Your task to perform on an android device: turn off airplane mode Image 0: 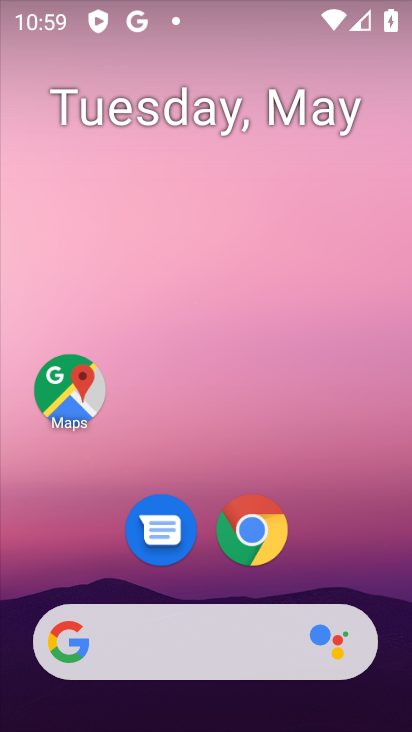
Step 0: drag from (329, 372) to (308, 116)
Your task to perform on an android device: turn off airplane mode Image 1: 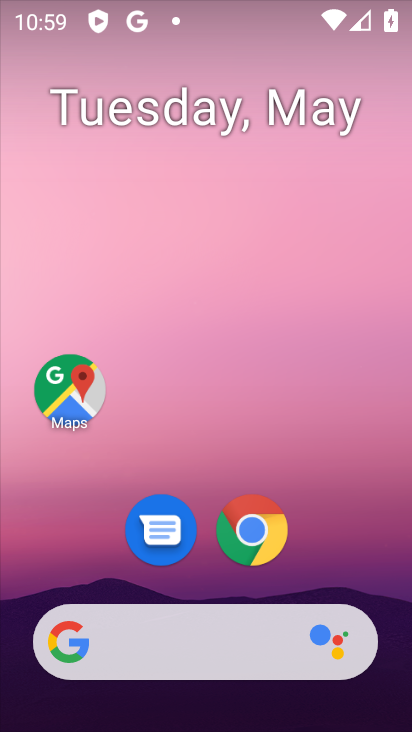
Step 1: drag from (341, 477) to (316, 140)
Your task to perform on an android device: turn off airplane mode Image 2: 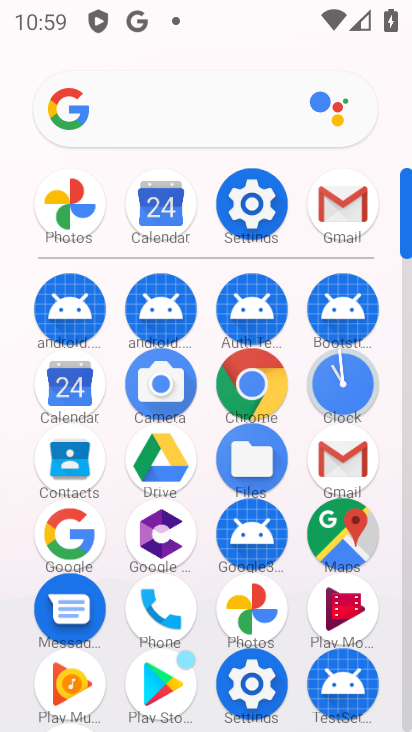
Step 2: click (266, 203)
Your task to perform on an android device: turn off airplane mode Image 3: 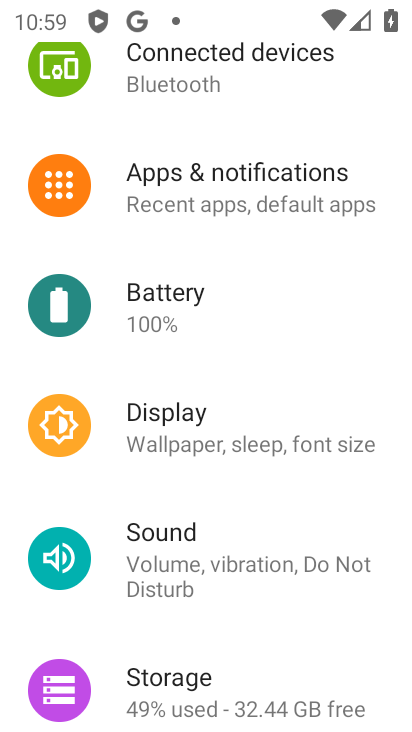
Step 3: drag from (250, 114) to (268, 487)
Your task to perform on an android device: turn off airplane mode Image 4: 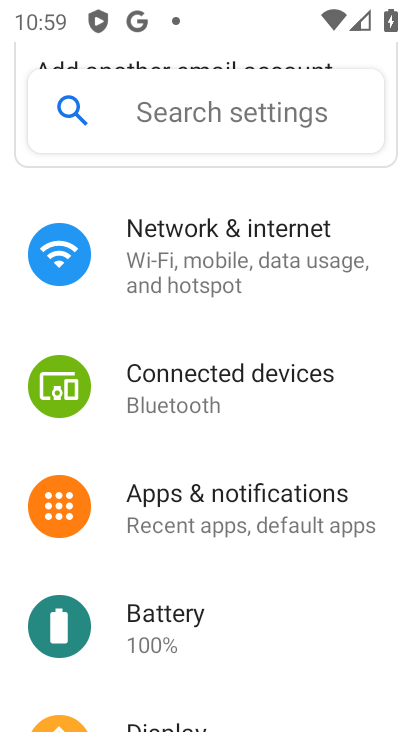
Step 4: drag from (241, 222) to (241, 379)
Your task to perform on an android device: turn off airplane mode Image 5: 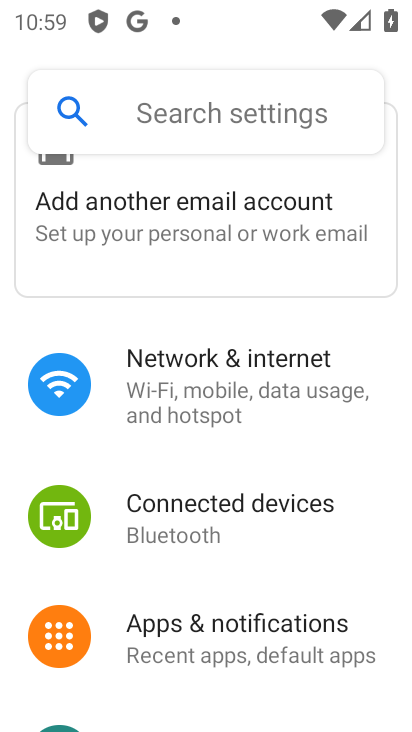
Step 5: click (234, 369)
Your task to perform on an android device: turn off airplane mode Image 6: 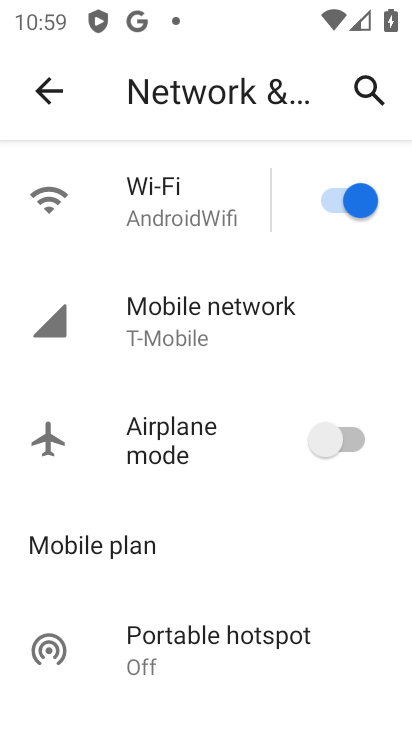
Step 6: click (88, 444)
Your task to perform on an android device: turn off airplane mode Image 7: 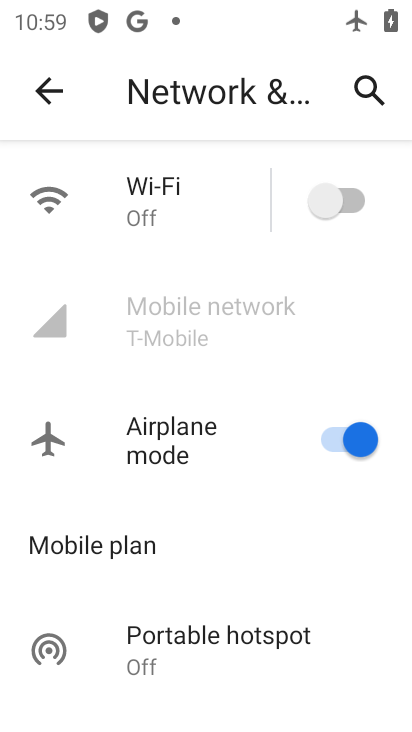
Step 7: click (331, 443)
Your task to perform on an android device: turn off airplane mode Image 8: 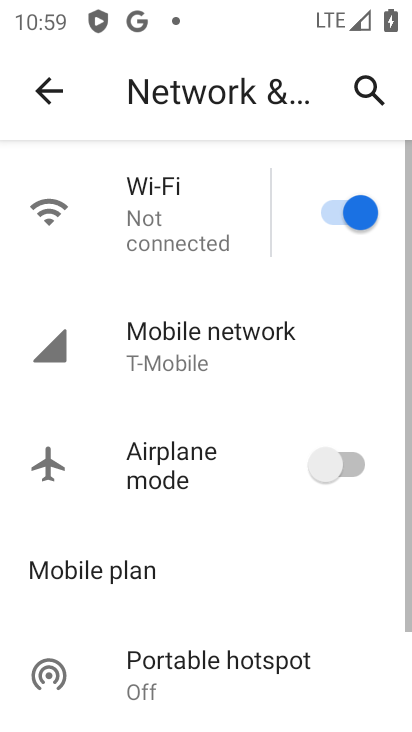
Step 8: task complete